Your task to perform on an android device: Open wifi settings Image 0: 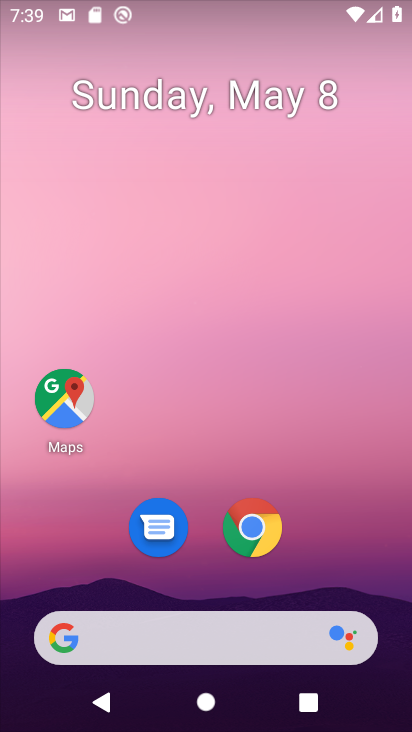
Step 0: drag from (318, 542) to (408, 0)
Your task to perform on an android device: Open wifi settings Image 1: 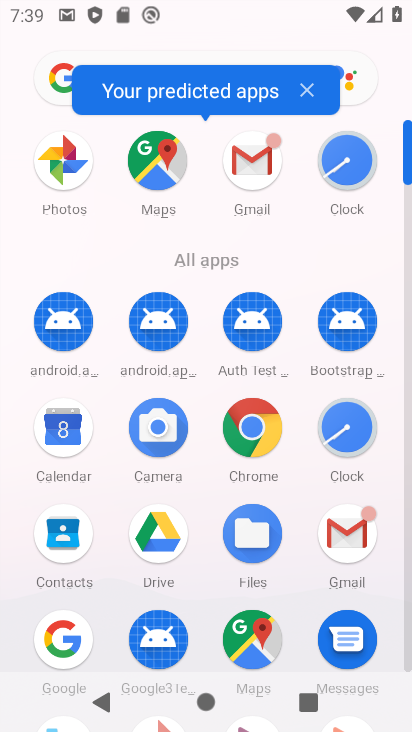
Step 1: drag from (292, 598) to (309, 295)
Your task to perform on an android device: Open wifi settings Image 2: 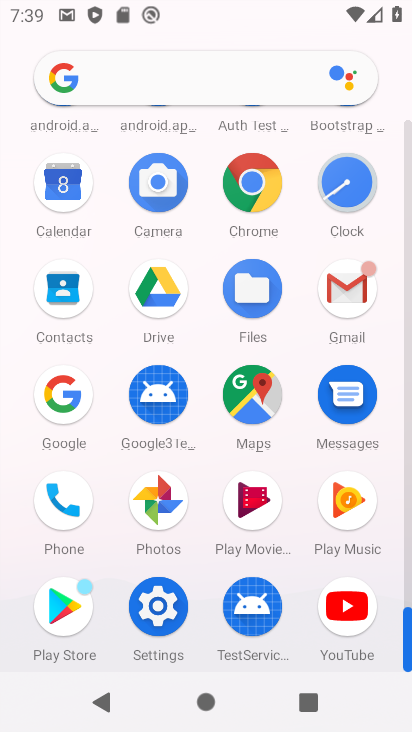
Step 2: click (149, 595)
Your task to perform on an android device: Open wifi settings Image 3: 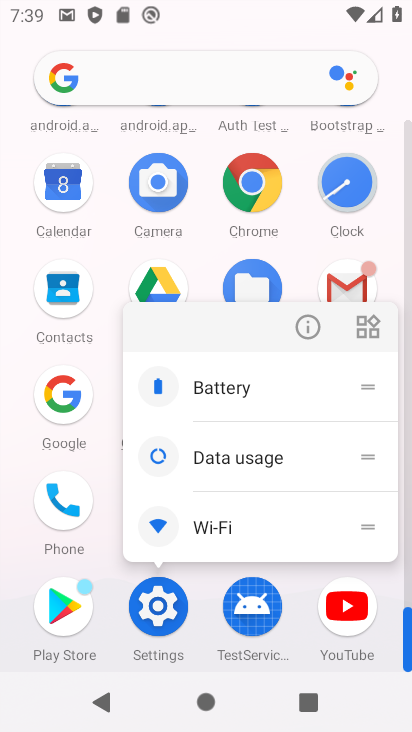
Step 3: click (149, 595)
Your task to perform on an android device: Open wifi settings Image 4: 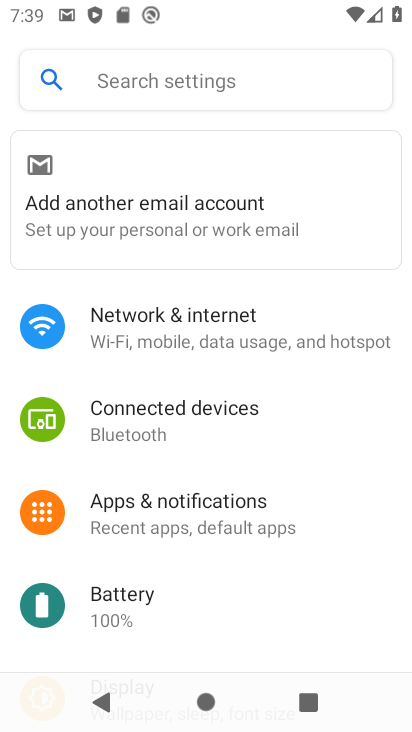
Step 4: click (153, 321)
Your task to perform on an android device: Open wifi settings Image 5: 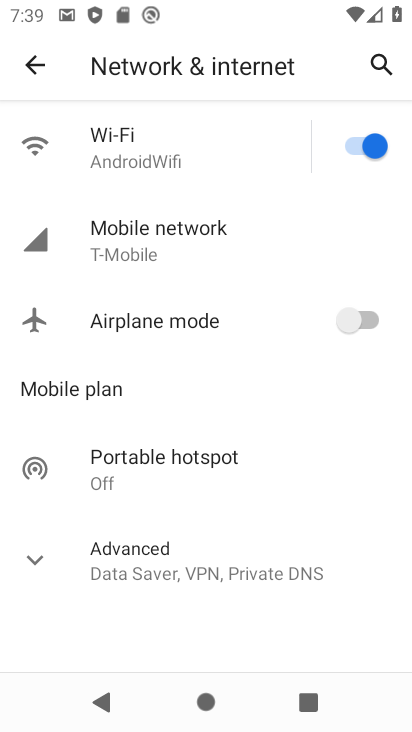
Step 5: click (85, 159)
Your task to perform on an android device: Open wifi settings Image 6: 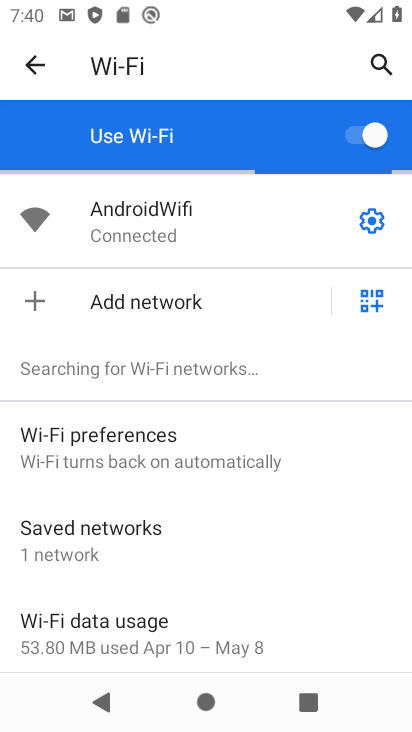
Step 6: task complete